Your task to perform on an android device: open app "Flipkart Online Shopping App" Image 0: 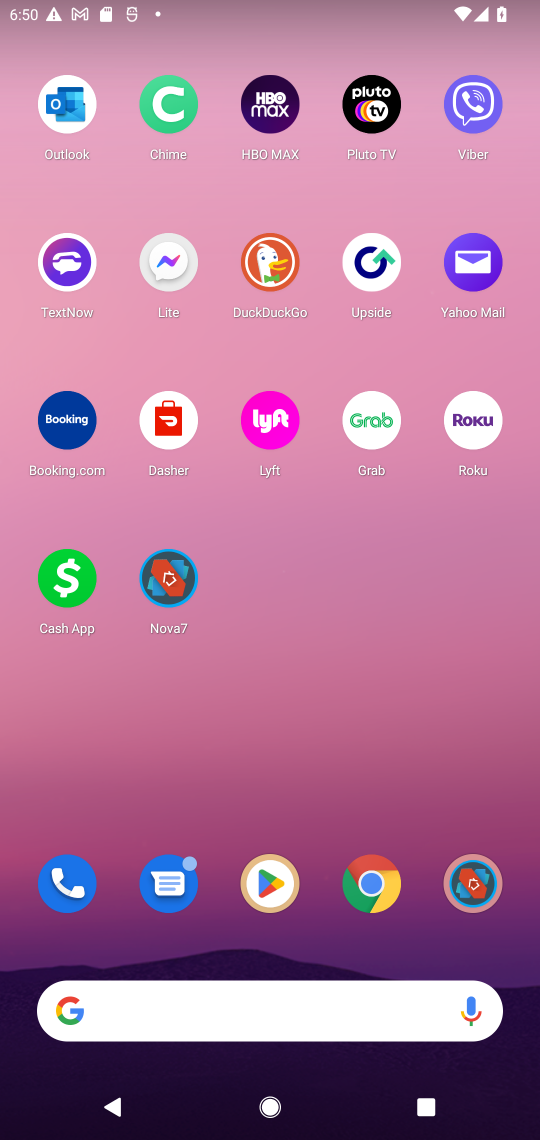
Step 0: click (280, 889)
Your task to perform on an android device: open app "Flipkart Online Shopping App" Image 1: 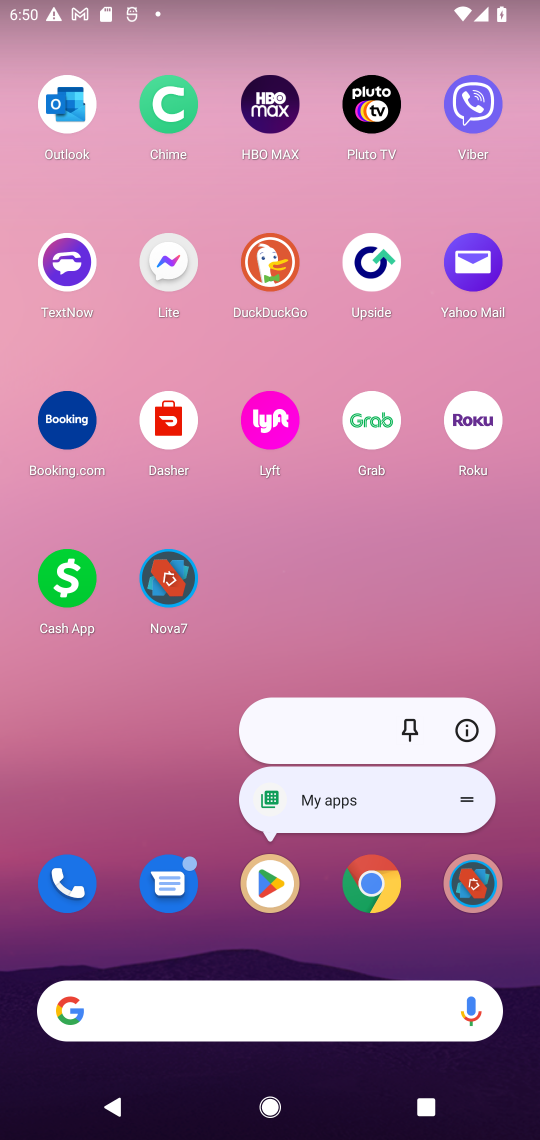
Step 1: click (280, 889)
Your task to perform on an android device: open app "Flipkart Online Shopping App" Image 2: 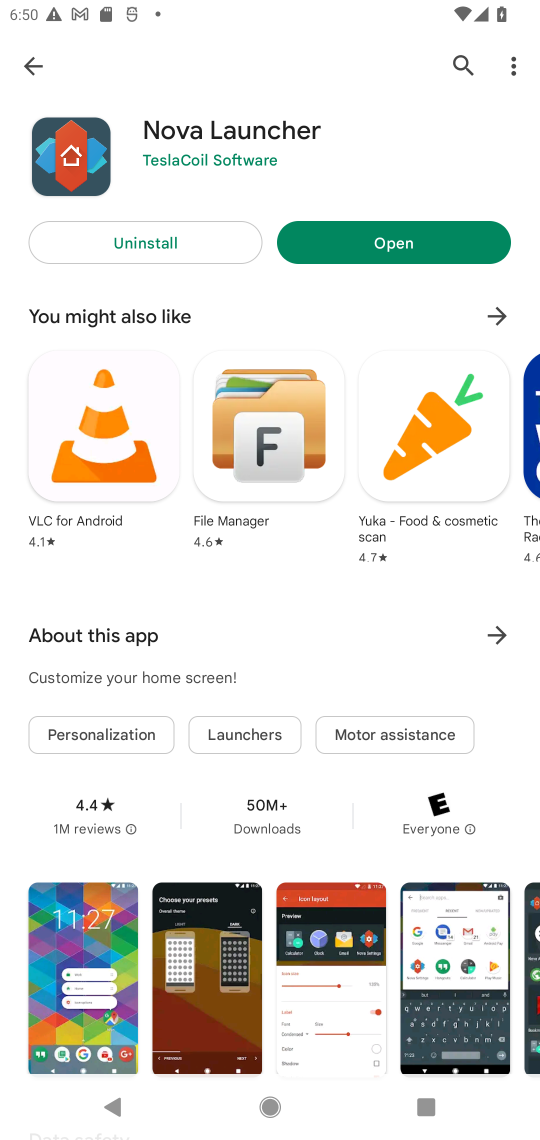
Step 2: click (464, 56)
Your task to perform on an android device: open app "Flipkart Online Shopping App" Image 3: 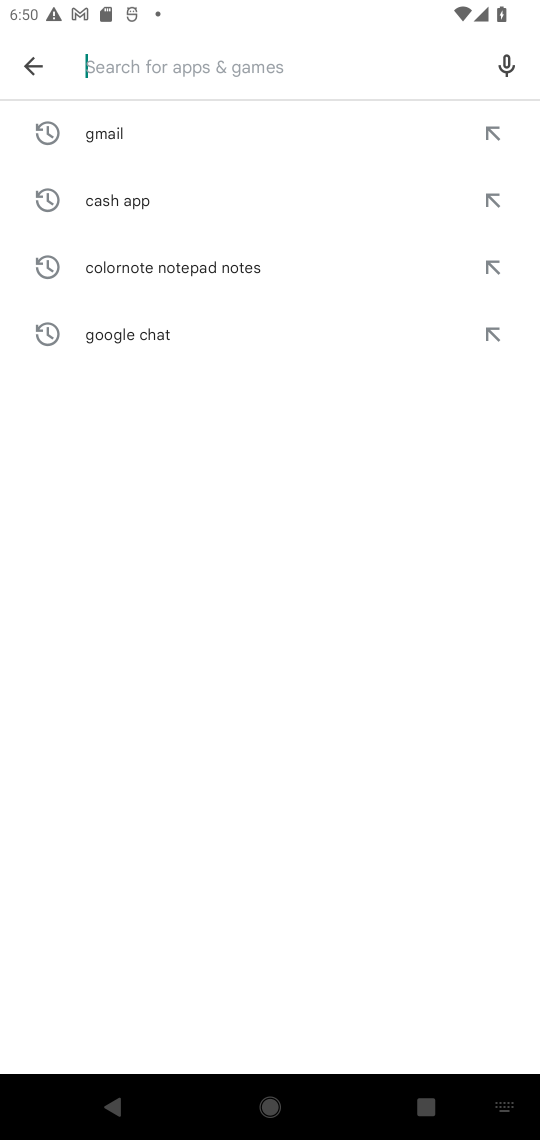
Step 3: type "Flipkart Online Shopping App"
Your task to perform on an android device: open app "Flipkart Online Shopping App" Image 4: 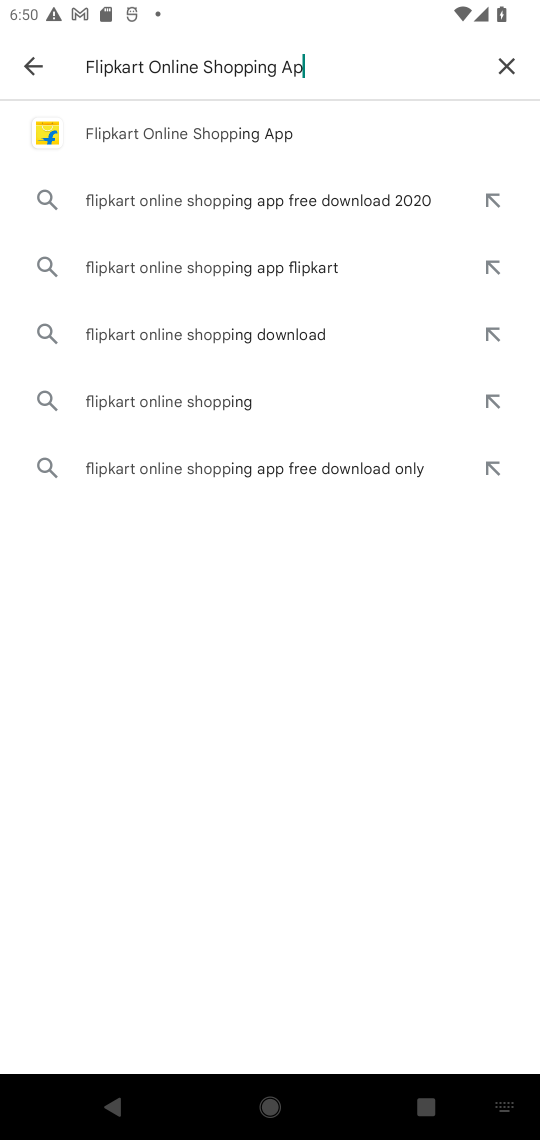
Step 4: type ""
Your task to perform on an android device: open app "Flipkart Online Shopping App" Image 5: 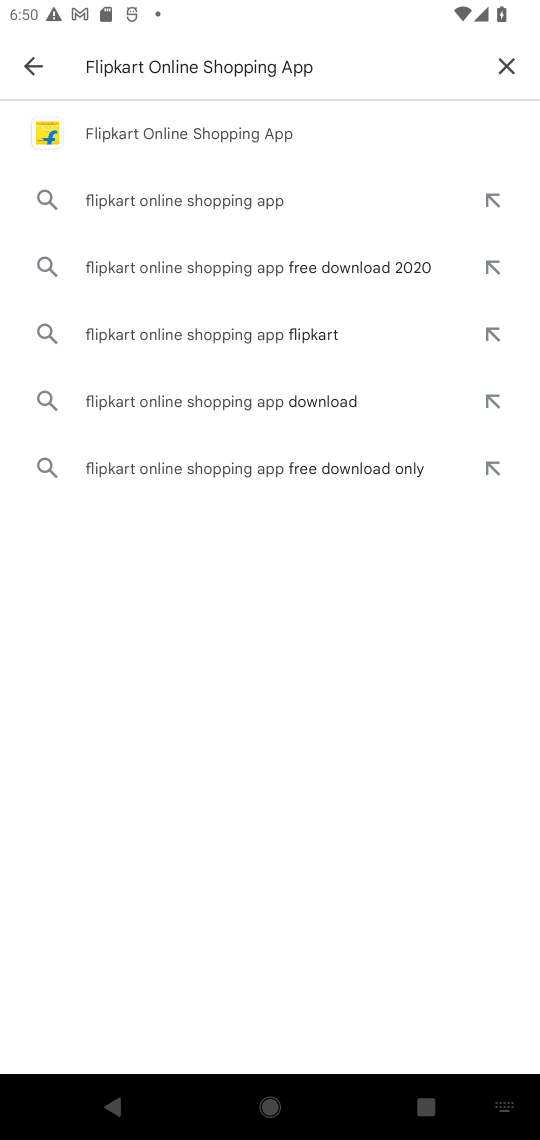
Step 5: click (111, 125)
Your task to perform on an android device: open app "Flipkart Online Shopping App" Image 6: 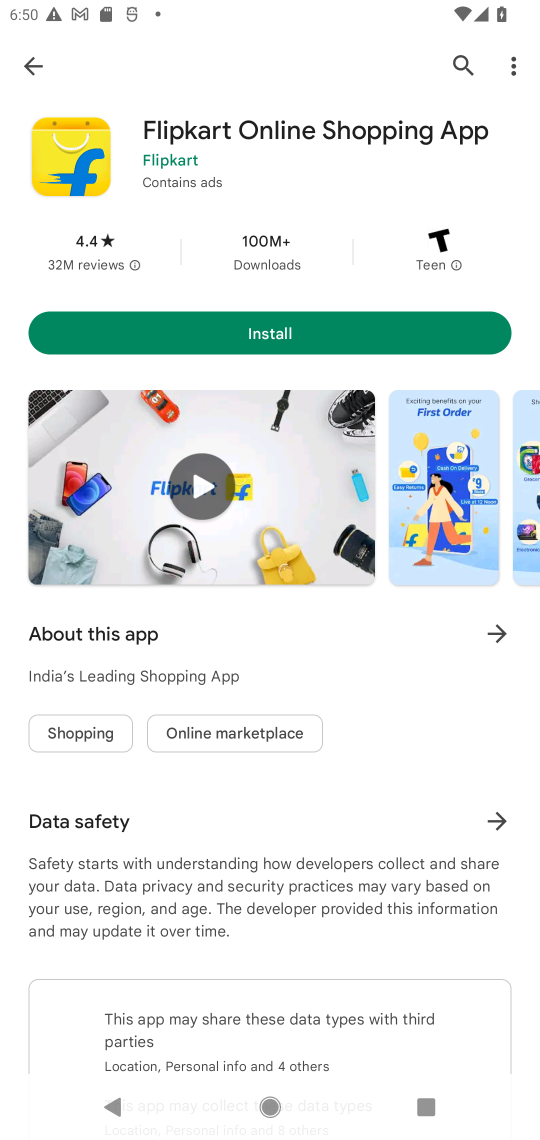
Step 6: task complete